Your task to perform on an android device: toggle notification dots Image 0: 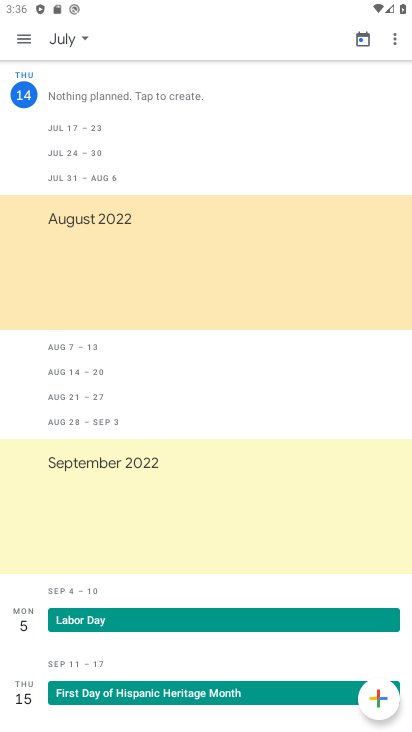
Step 0: drag from (215, 545) to (239, 199)
Your task to perform on an android device: toggle notification dots Image 1: 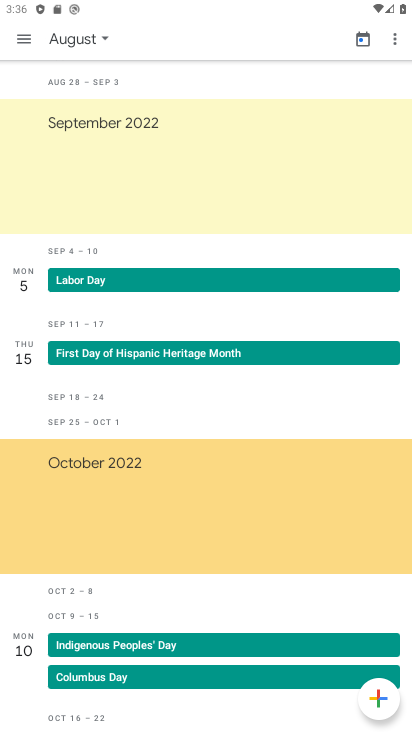
Step 1: press back button
Your task to perform on an android device: toggle notification dots Image 2: 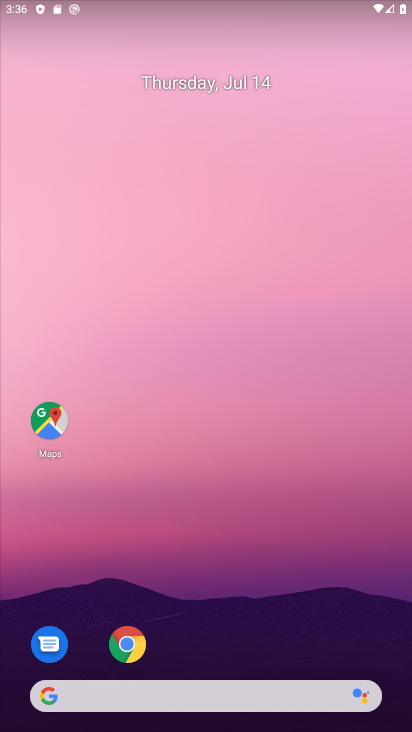
Step 2: drag from (216, 665) to (252, 21)
Your task to perform on an android device: toggle notification dots Image 3: 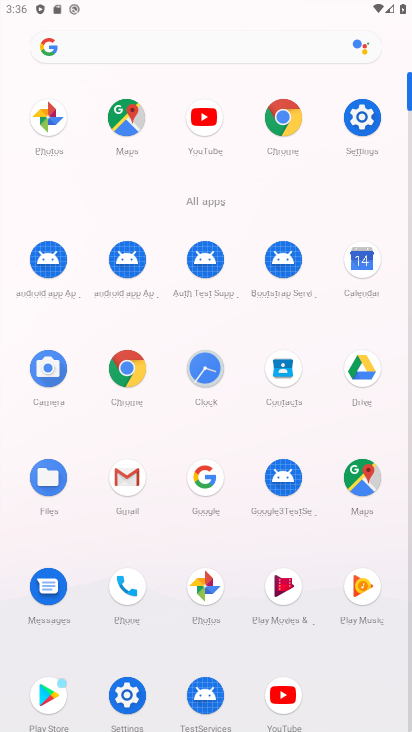
Step 3: click (365, 111)
Your task to perform on an android device: toggle notification dots Image 4: 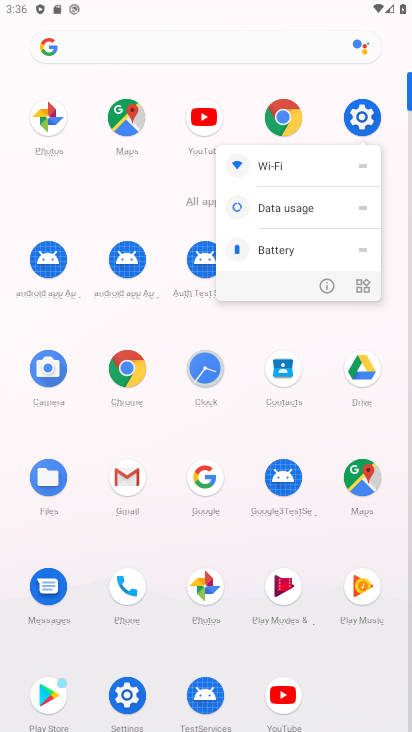
Step 4: click (365, 115)
Your task to perform on an android device: toggle notification dots Image 5: 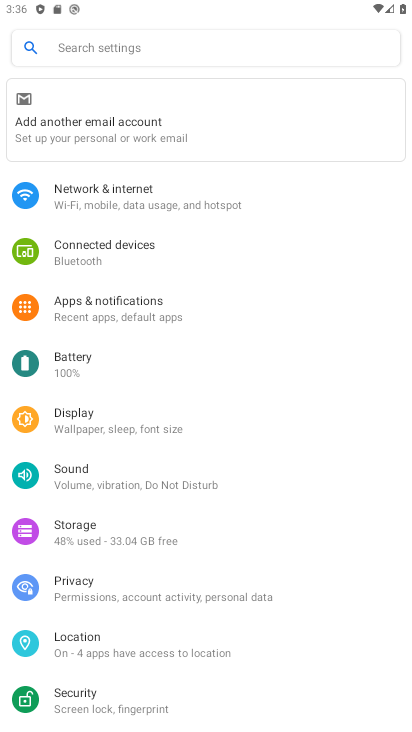
Step 5: click (108, 307)
Your task to perform on an android device: toggle notification dots Image 6: 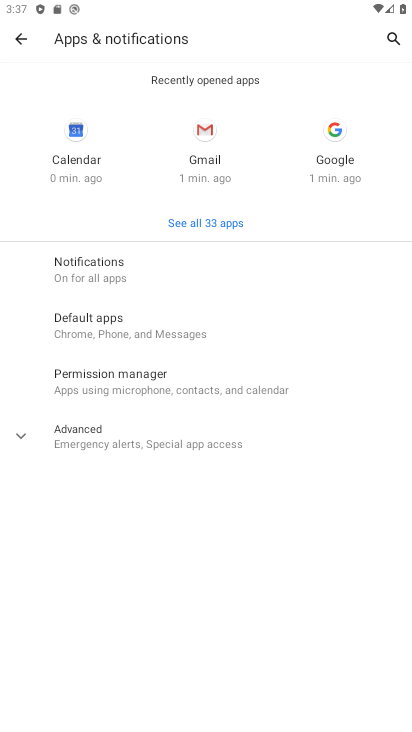
Step 6: click (121, 257)
Your task to perform on an android device: toggle notification dots Image 7: 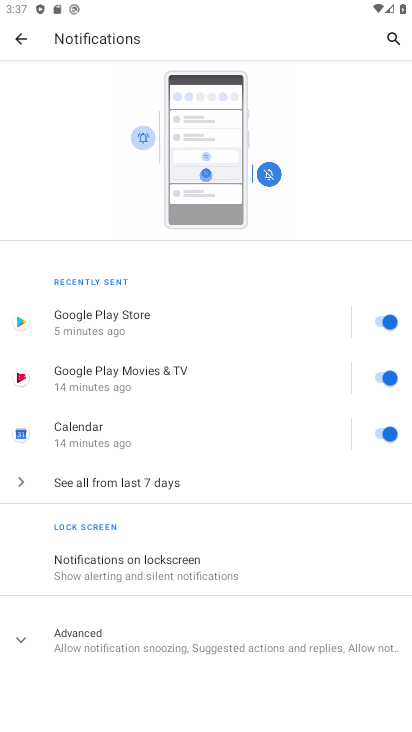
Step 7: click (156, 621)
Your task to perform on an android device: toggle notification dots Image 8: 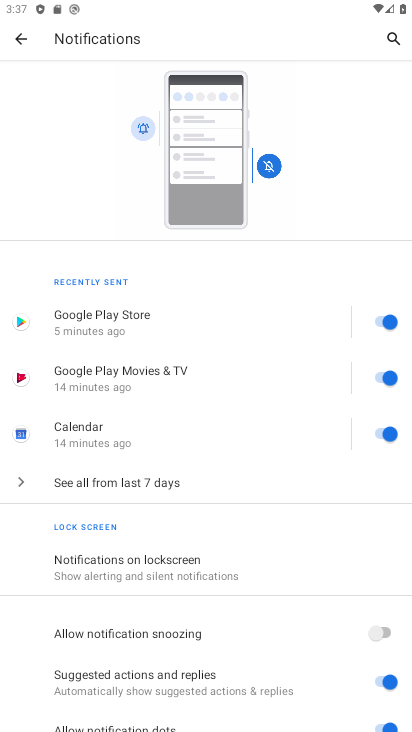
Step 8: drag from (155, 614) to (258, 152)
Your task to perform on an android device: toggle notification dots Image 9: 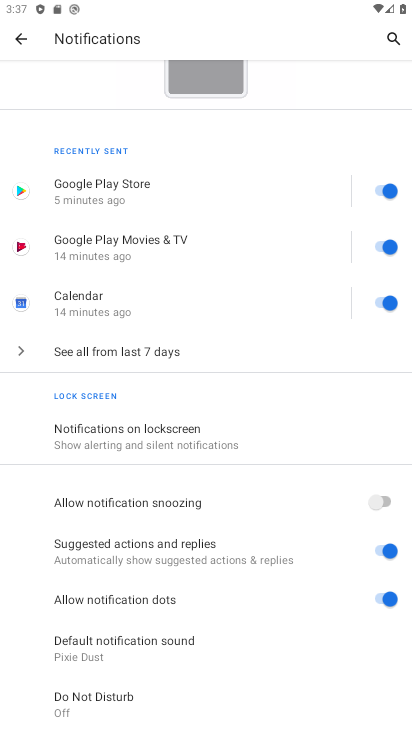
Step 9: click (391, 599)
Your task to perform on an android device: toggle notification dots Image 10: 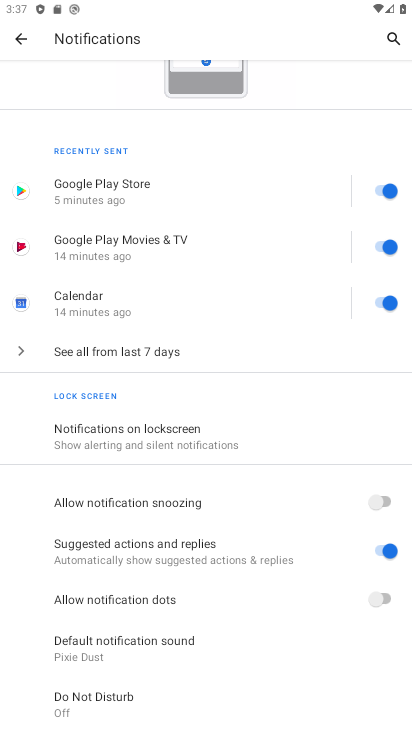
Step 10: task complete